Your task to perform on an android device: move an email to a new category in the gmail app Image 0: 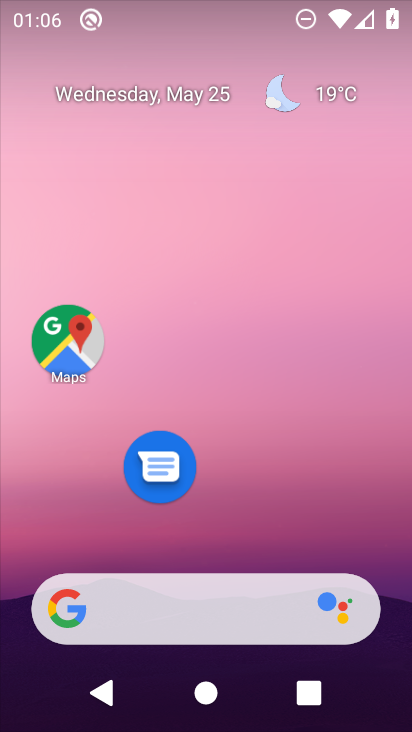
Step 0: drag from (253, 571) to (267, 166)
Your task to perform on an android device: move an email to a new category in the gmail app Image 1: 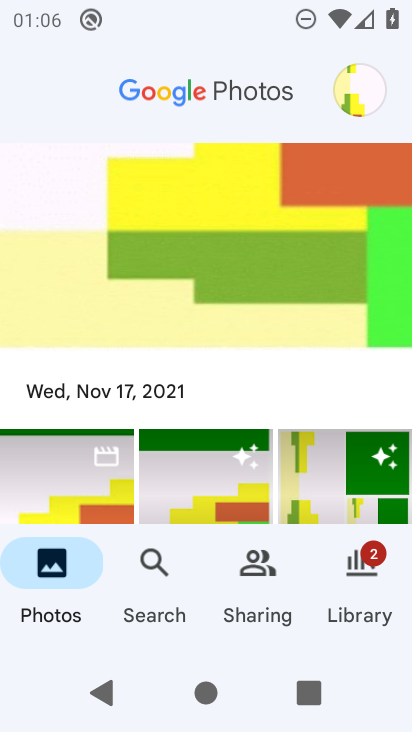
Step 1: press home button
Your task to perform on an android device: move an email to a new category in the gmail app Image 2: 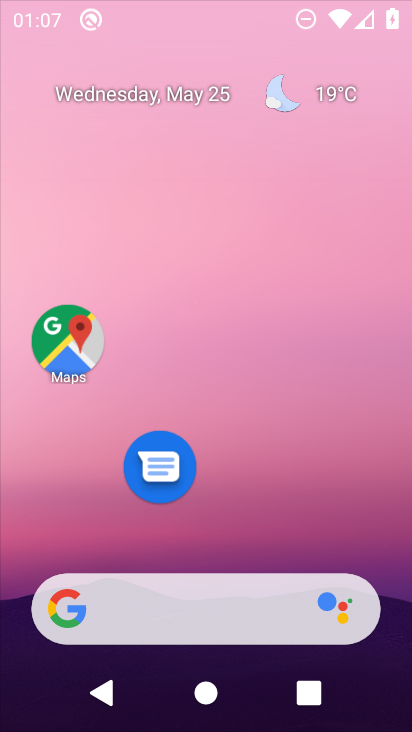
Step 2: drag from (269, 455) to (400, 60)
Your task to perform on an android device: move an email to a new category in the gmail app Image 3: 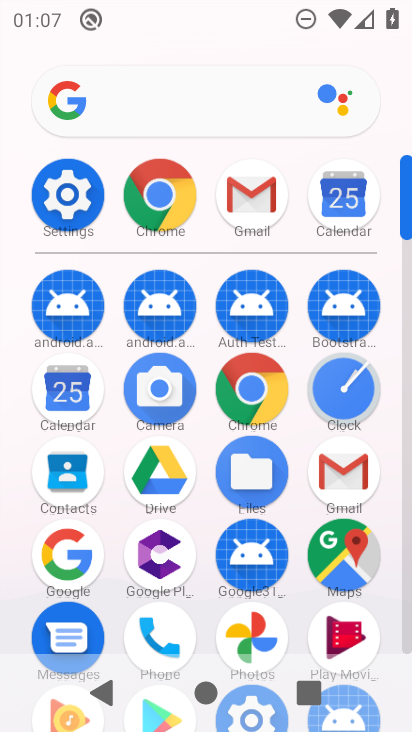
Step 3: click (343, 480)
Your task to perform on an android device: move an email to a new category in the gmail app Image 4: 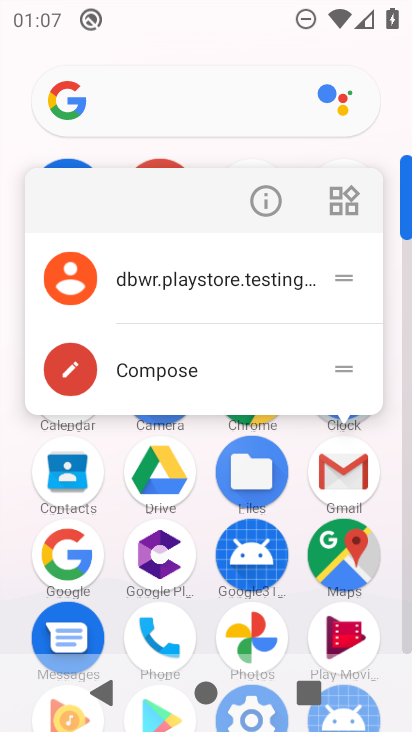
Step 4: click (147, 283)
Your task to perform on an android device: move an email to a new category in the gmail app Image 5: 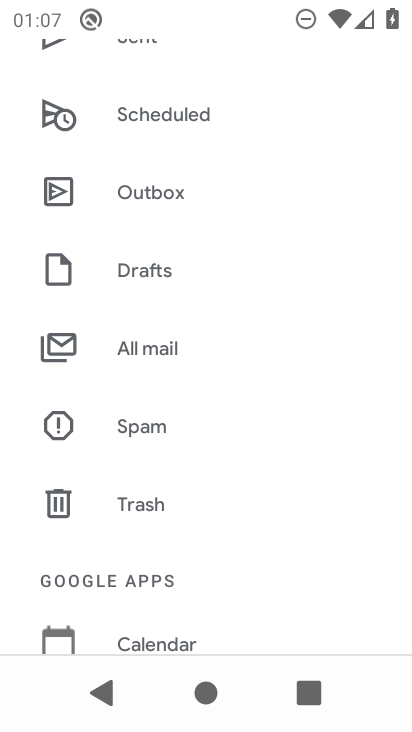
Step 5: task complete